Your task to perform on an android device: Open display settings Image 0: 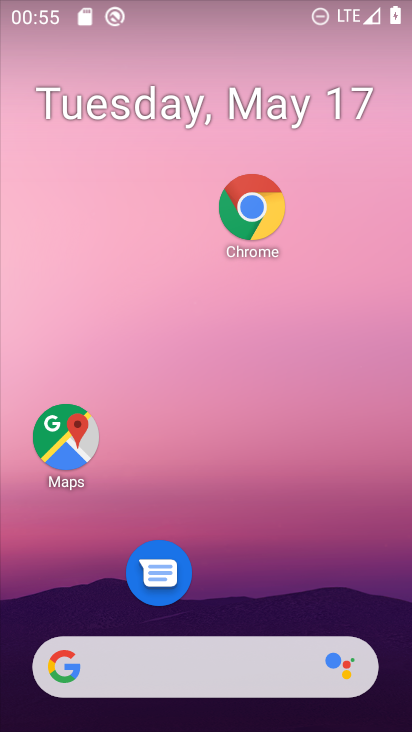
Step 0: drag from (322, 662) to (335, 101)
Your task to perform on an android device: Open display settings Image 1: 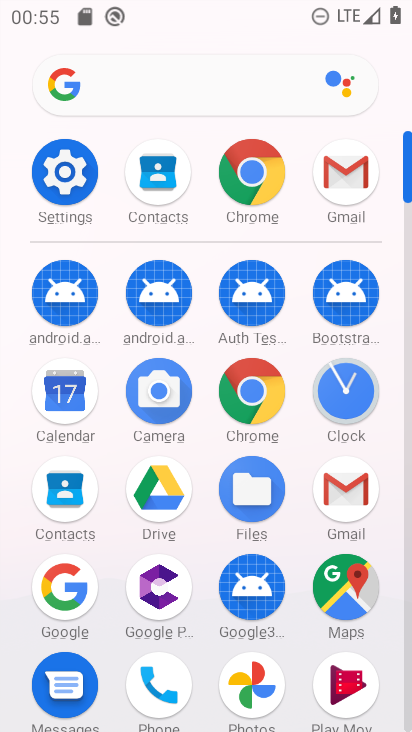
Step 1: click (80, 180)
Your task to perform on an android device: Open display settings Image 2: 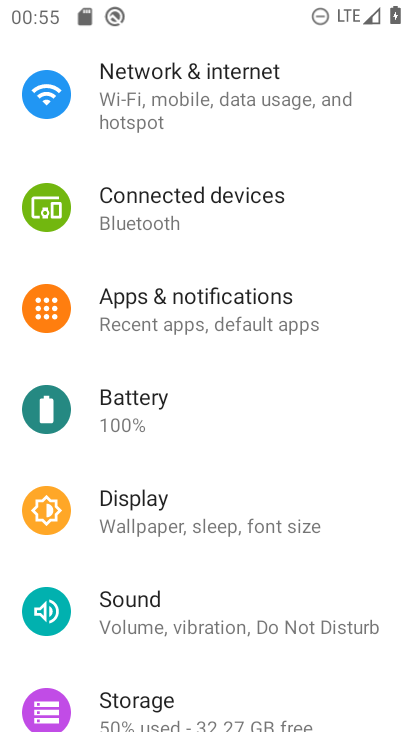
Step 2: drag from (236, 294) to (241, 728)
Your task to perform on an android device: Open display settings Image 3: 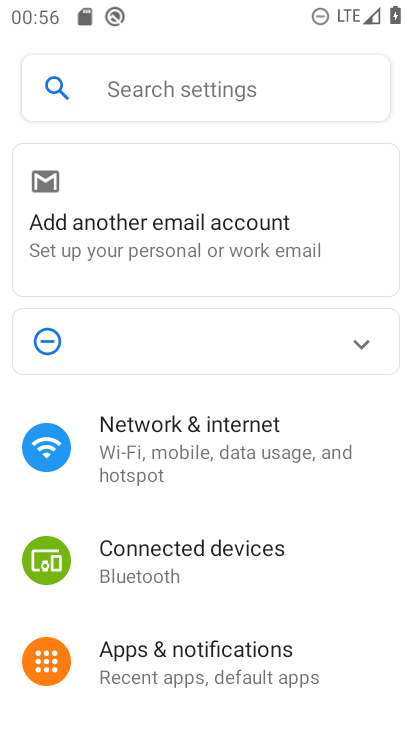
Step 3: drag from (284, 687) to (323, 69)
Your task to perform on an android device: Open display settings Image 4: 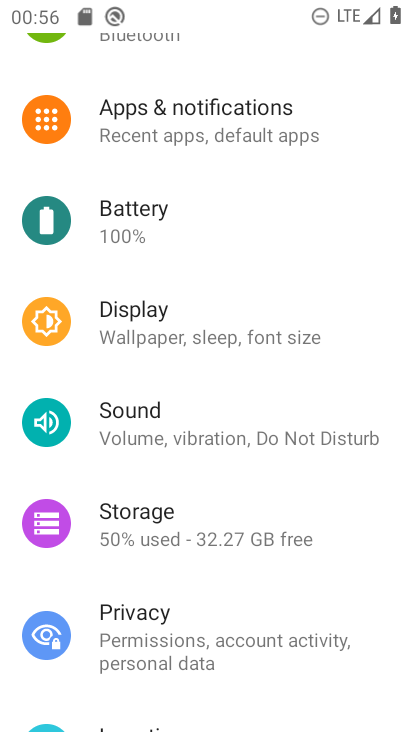
Step 4: drag from (213, 640) to (214, 369)
Your task to perform on an android device: Open display settings Image 5: 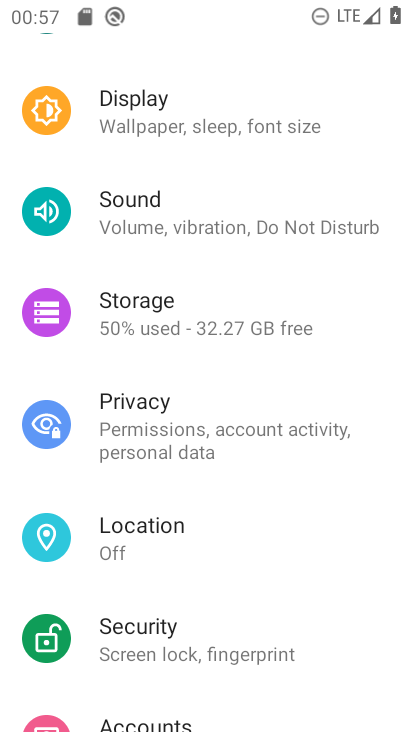
Step 5: click (233, 109)
Your task to perform on an android device: Open display settings Image 6: 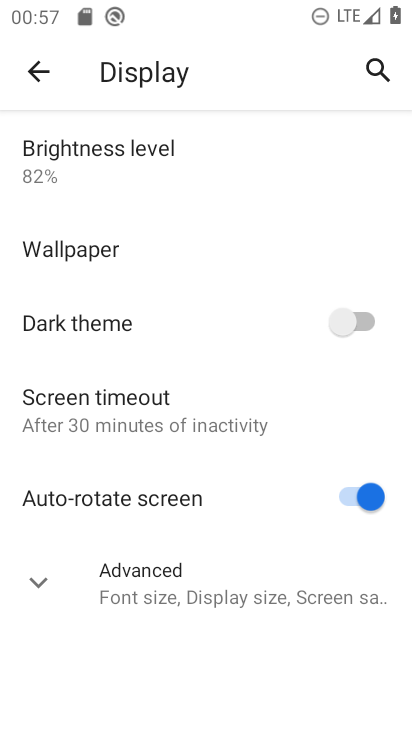
Step 6: task complete